Your task to perform on an android device: What's the weather going to be this weekend? Image 0: 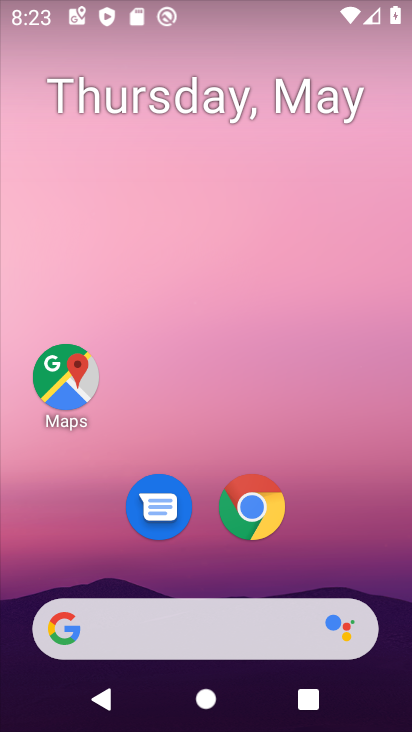
Step 0: drag from (194, 651) to (217, 123)
Your task to perform on an android device: What's the weather going to be this weekend? Image 1: 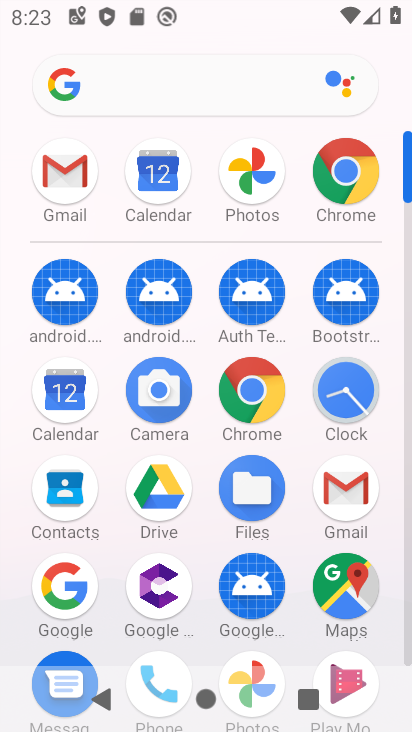
Step 1: click (156, 96)
Your task to perform on an android device: What's the weather going to be this weekend? Image 2: 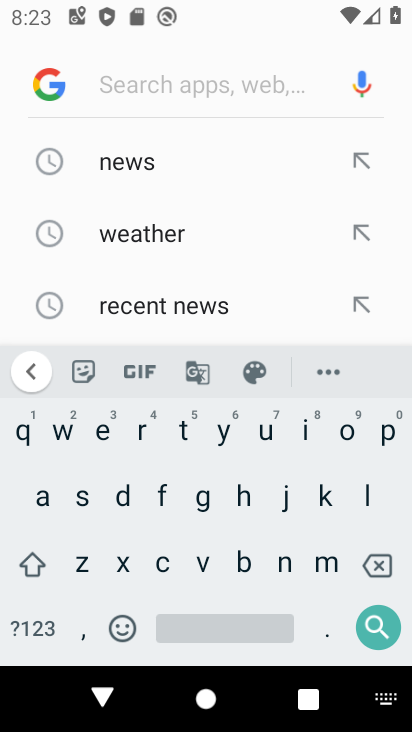
Step 2: click (158, 231)
Your task to perform on an android device: What's the weather going to be this weekend? Image 3: 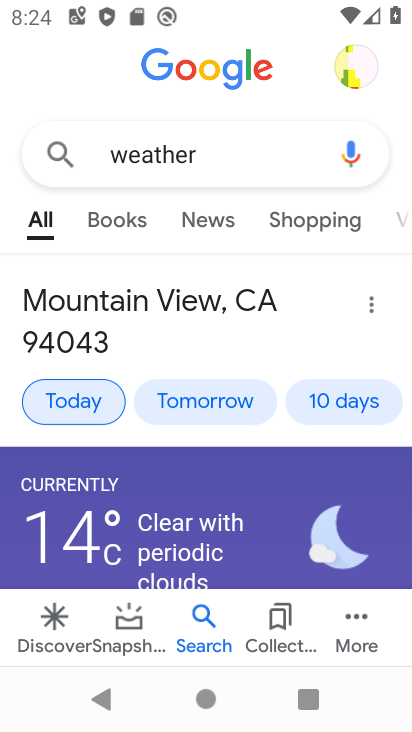
Step 3: click (341, 401)
Your task to perform on an android device: What's the weather going to be this weekend? Image 4: 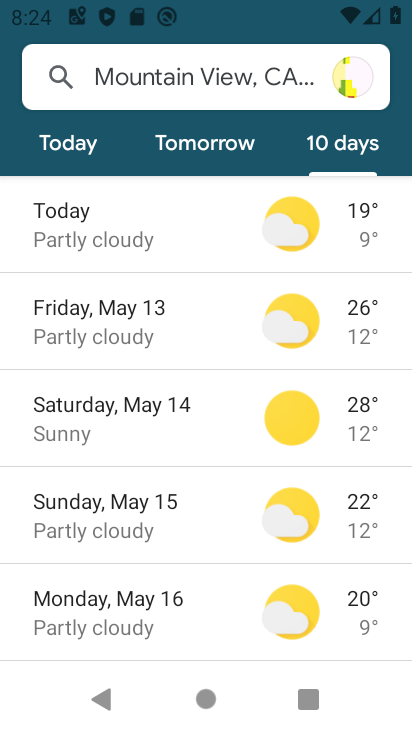
Step 4: task complete